Your task to perform on an android device: turn off notifications settings in the gmail app Image 0: 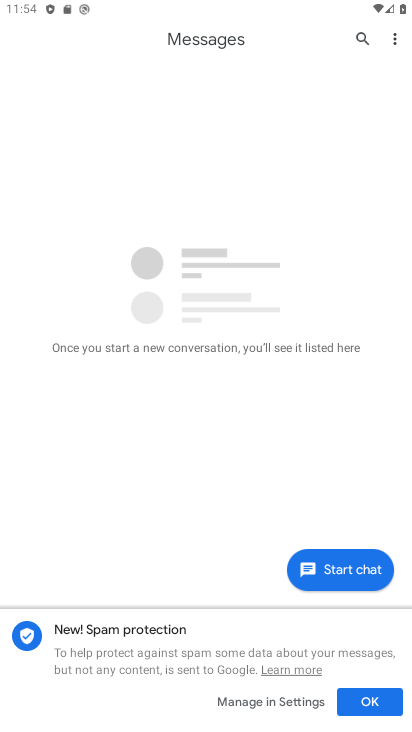
Step 0: press home button
Your task to perform on an android device: turn off notifications settings in the gmail app Image 1: 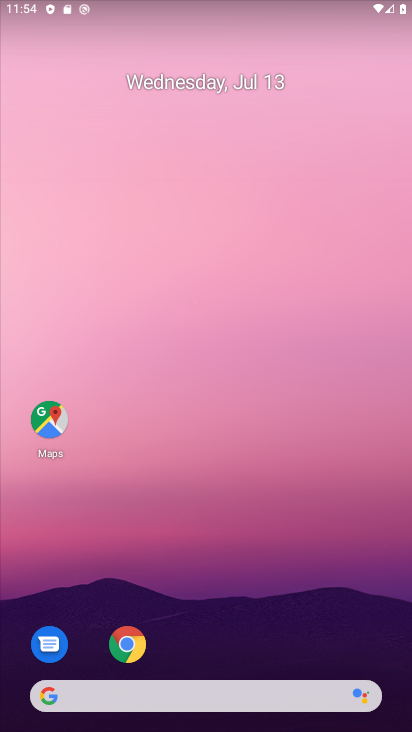
Step 1: drag from (225, 664) to (171, 206)
Your task to perform on an android device: turn off notifications settings in the gmail app Image 2: 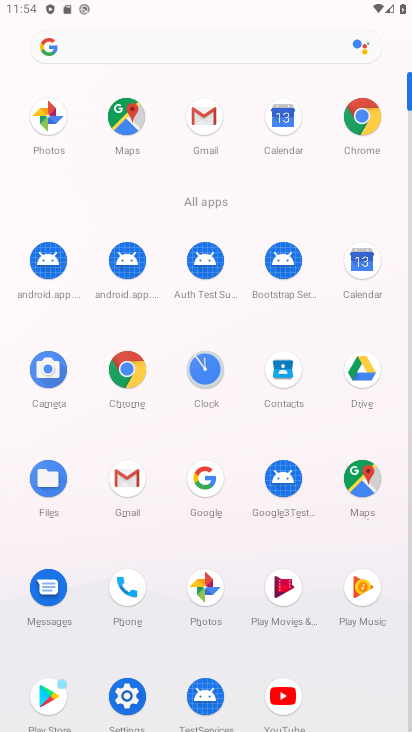
Step 2: click (128, 493)
Your task to perform on an android device: turn off notifications settings in the gmail app Image 3: 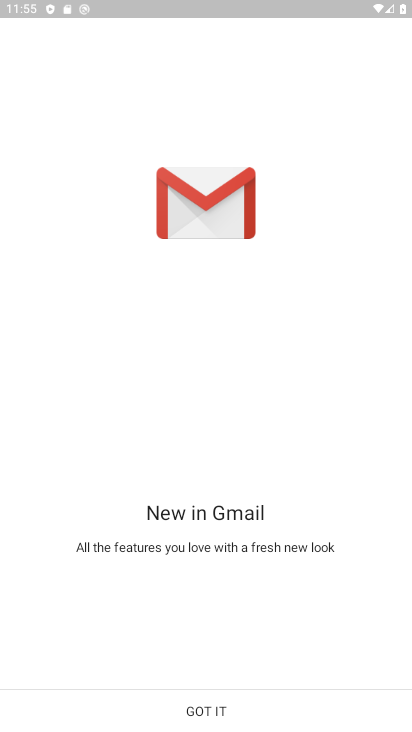
Step 3: click (174, 717)
Your task to perform on an android device: turn off notifications settings in the gmail app Image 4: 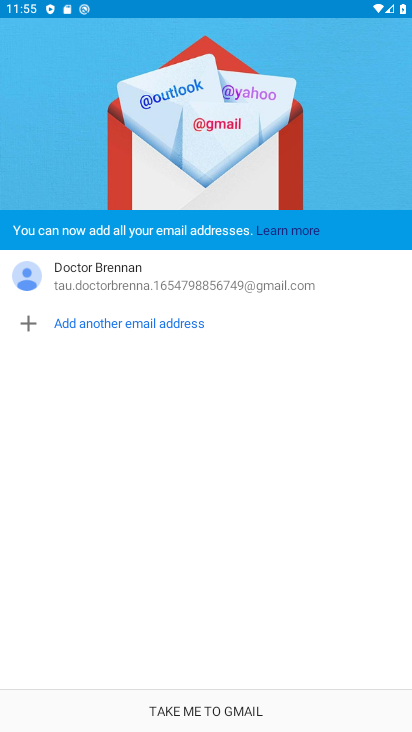
Step 4: click (174, 717)
Your task to perform on an android device: turn off notifications settings in the gmail app Image 5: 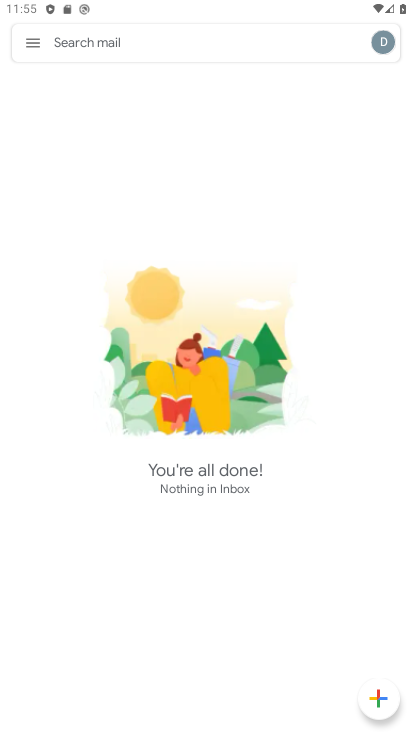
Step 5: click (41, 43)
Your task to perform on an android device: turn off notifications settings in the gmail app Image 6: 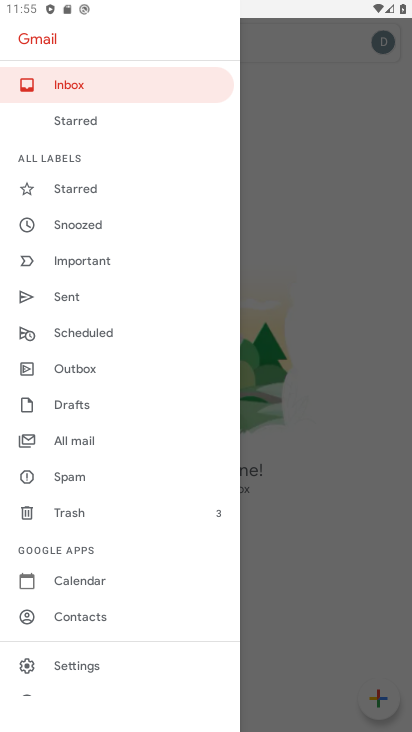
Step 6: click (80, 659)
Your task to perform on an android device: turn off notifications settings in the gmail app Image 7: 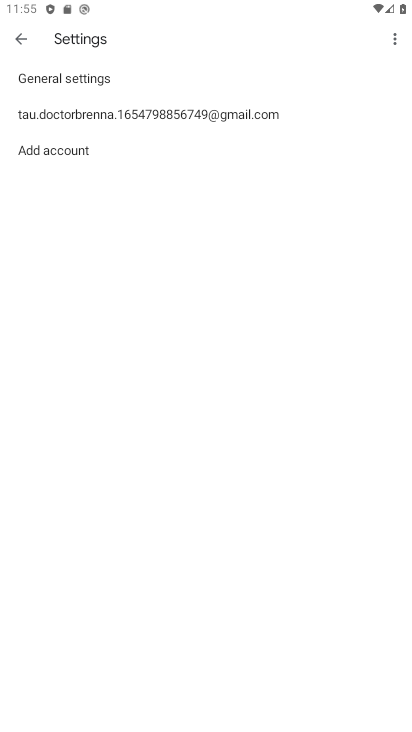
Step 7: click (45, 77)
Your task to perform on an android device: turn off notifications settings in the gmail app Image 8: 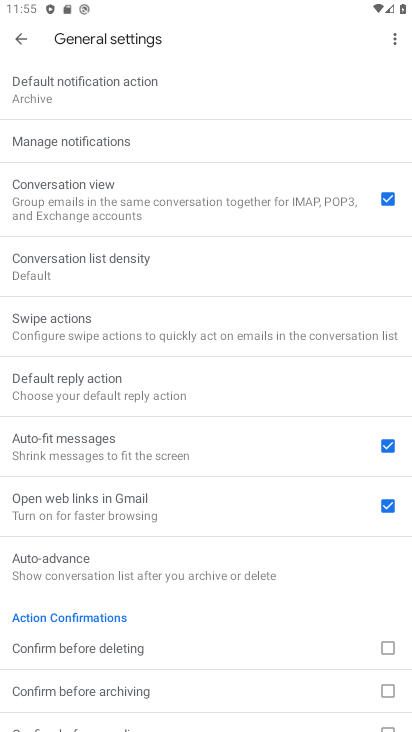
Step 8: click (49, 137)
Your task to perform on an android device: turn off notifications settings in the gmail app Image 9: 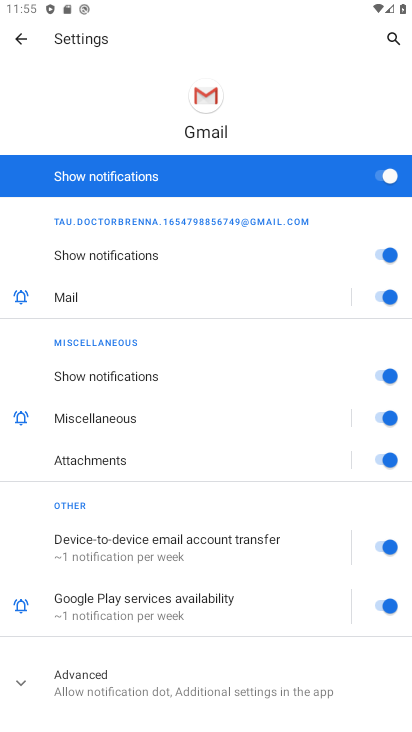
Step 9: click (382, 178)
Your task to perform on an android device: turn off notifications settings in the gmail app Image 10: 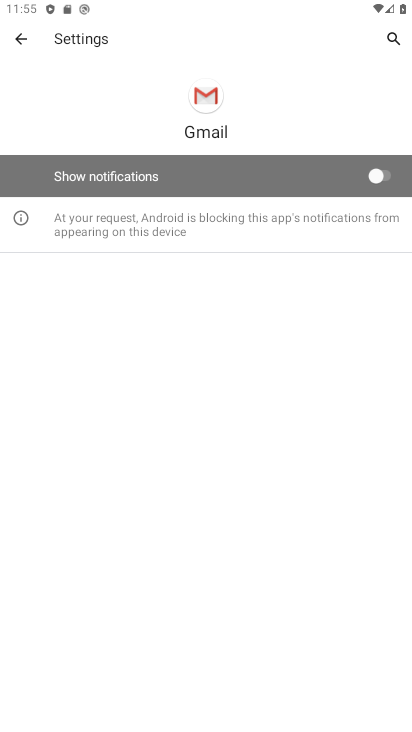
Step 10: task complete